Your task to perform on an android device: install app "PlayWell" Image 0: 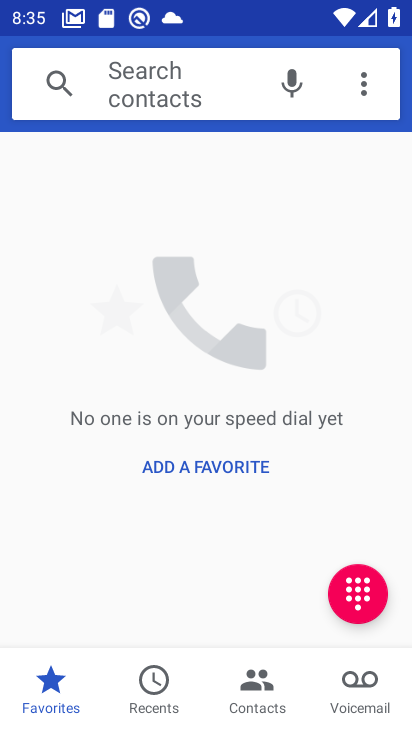
Step 0: press home button
Your task to perform on an android device: install app "PlayWell" Image 1: 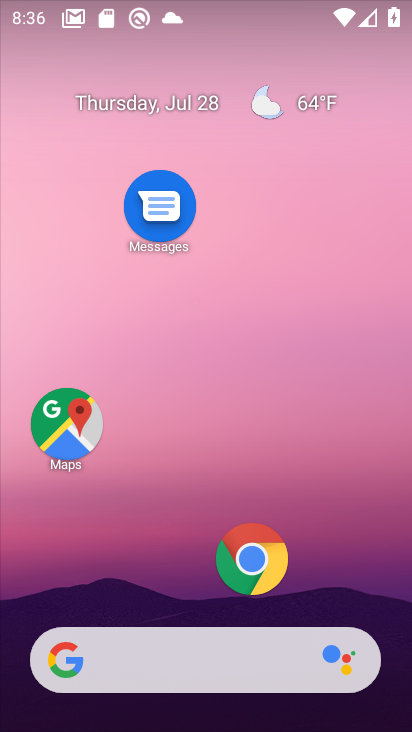
Step 1: drag from (158, 533) to (193, 5)
Your task to perform on an android device: install app "PlayWell" Image 2: 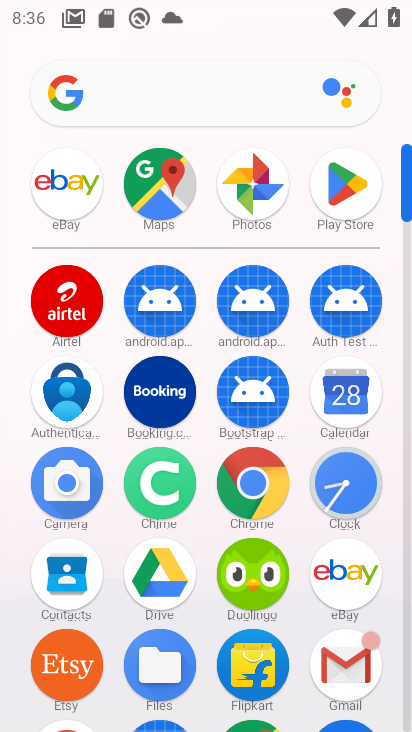
Step 2: click (344, 175)
Your task to perform on an android device: install app "PlayWell" Image 3: 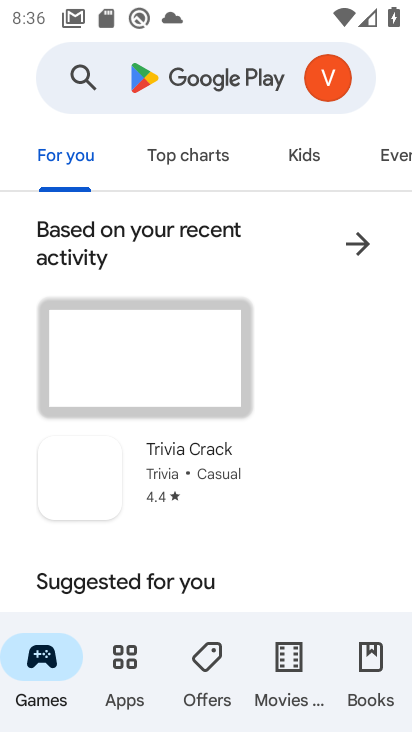
Step 3: click (174, 88)
Your task to perform on an android device: install app "PlayWell" Image 4: 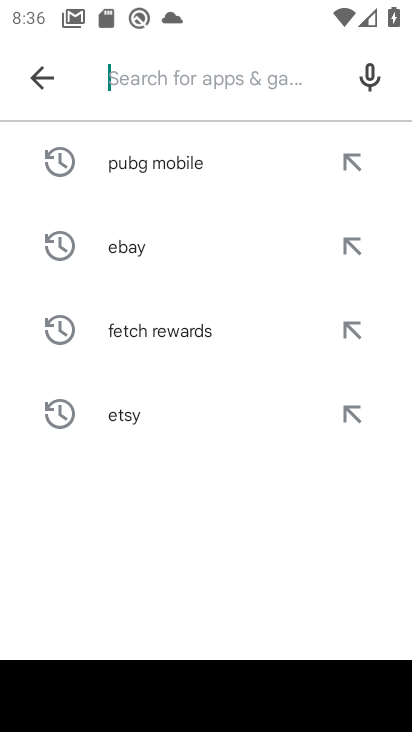
Step 4: type "playwell"
Your task to perform on an android device: install app "PlayWell" Image 5: 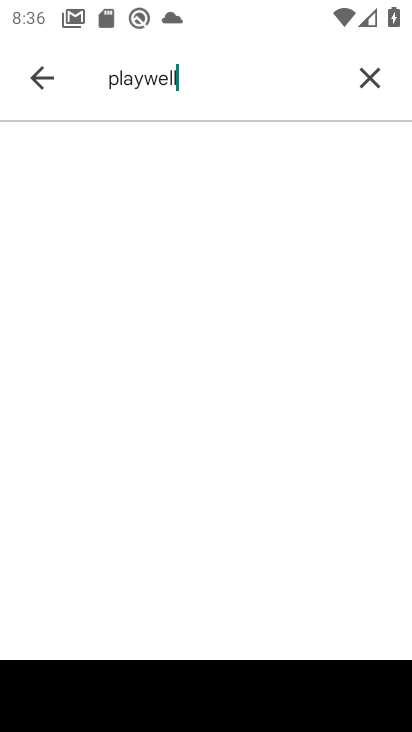
Step 5: click (170, 180)
Your task to perform on an android device: install app "PlayWell" Image 6: 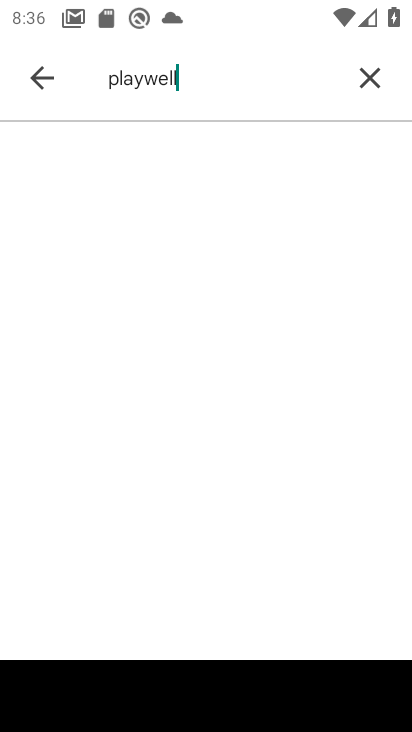
Step 6: drag from (183, 223) to (196, 126)
Your task to perform on an android device: install app "PlayWell" Image 7: 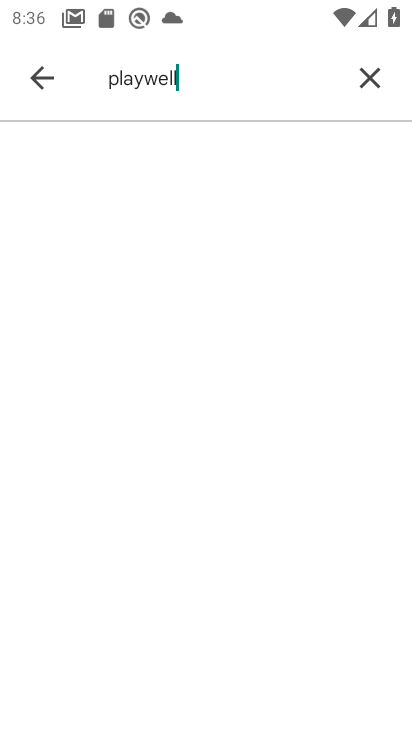
Step 7: drag from (172, 327) to (201, 150)
Your task to perform on an android device: install app "PlayWell" Image 8: 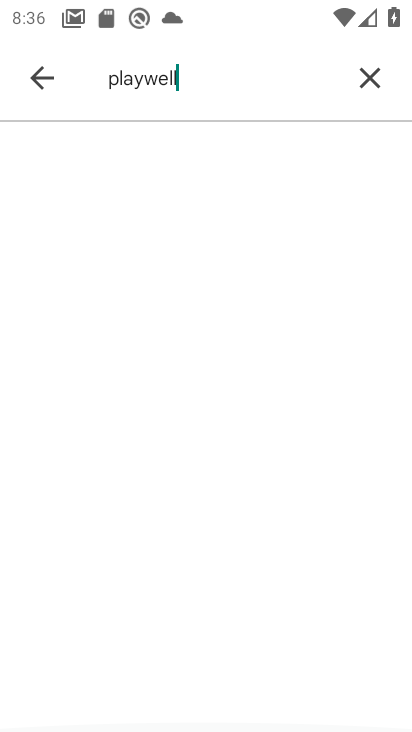
Step 8: drag from (167, 317) to (172, 187)
Your task to perform on an android device: install app "PlayWell" Image 9: 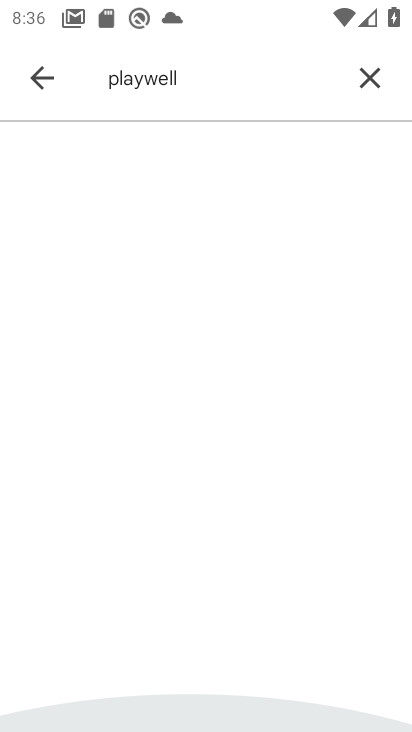
Step 9: drag from (168, 195) to (189, 567)
Your task to perform on an android device: install app "PlayWell" Image 10: 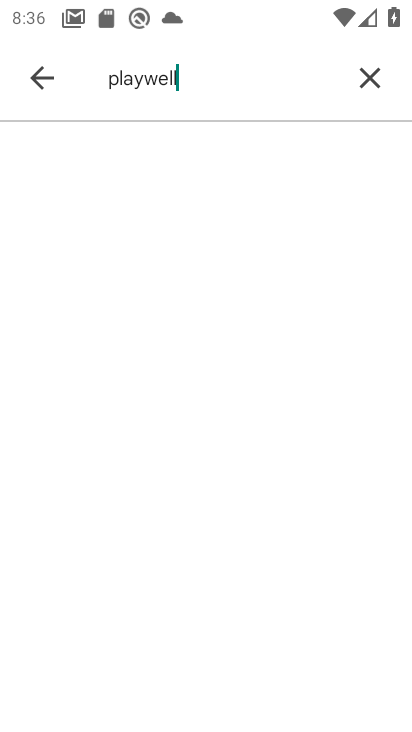
Step 10: drag from (150, 193) to (158, 420)
Your task to perform on an android device: install app "PlayWell" Image 11: 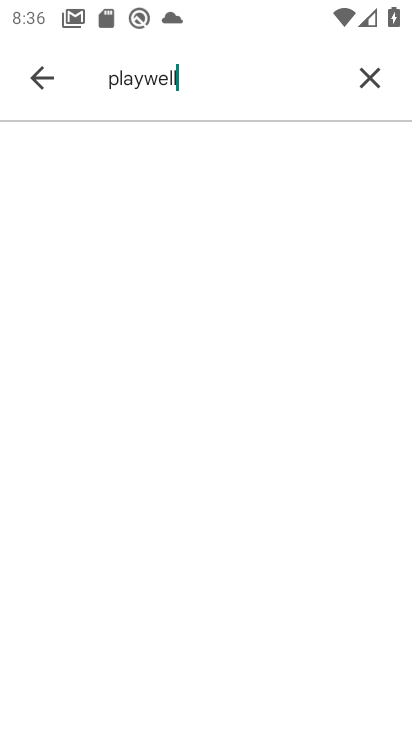
Step 11: click (35, 70)
Your task to perform on an android device: install app "PlayWell" Image 12: 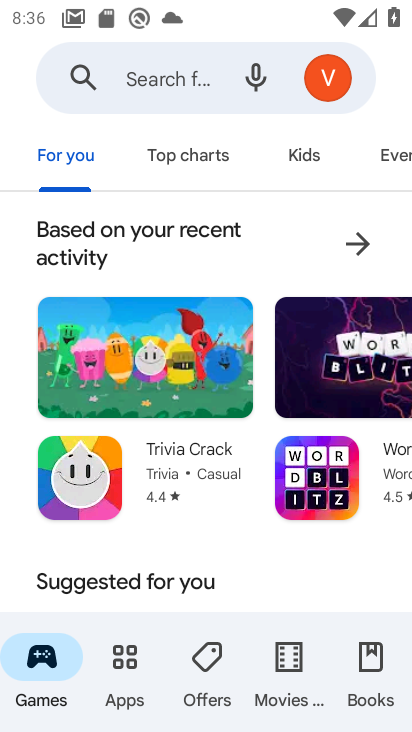
Step 12: click (171, 70)
Your task to perform on an android device: install app "PlayWell" Image 13: 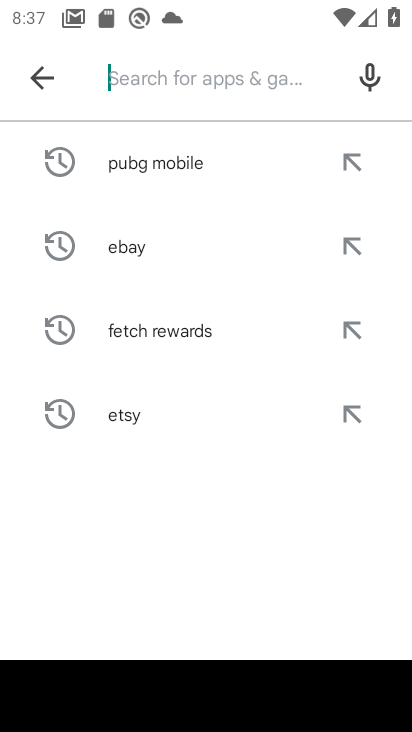
Step 13: type "Playwell"
Your task to perform on an android device: install app "PlayWell" Image 14: 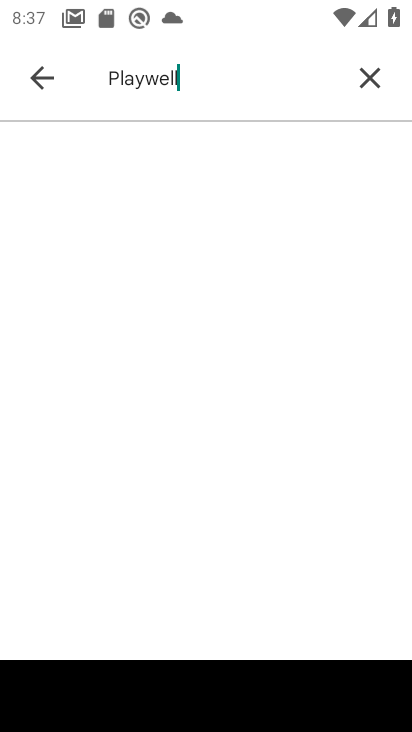
Step 14: click (189, 183)
Your task to perform on an android device: install app "PlayWell" Image 15: 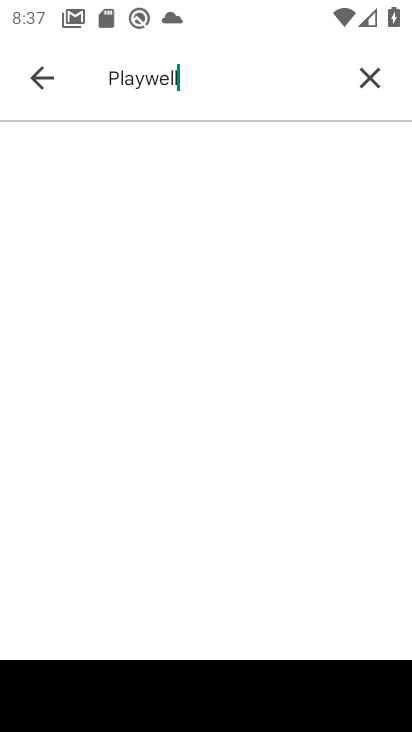
Step 15: click (93, 150)
Your task to perform on an android device: install app "PlayWell" Image 16: 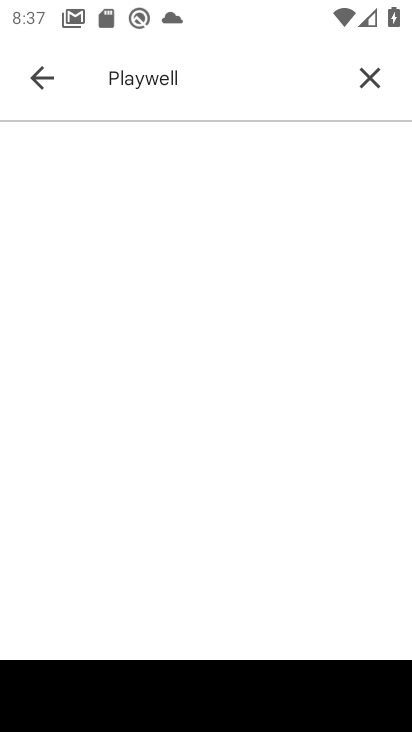
Step 16: click (154, 149)
Your task to perform on an android device: install app "PlayWell" Image 17: 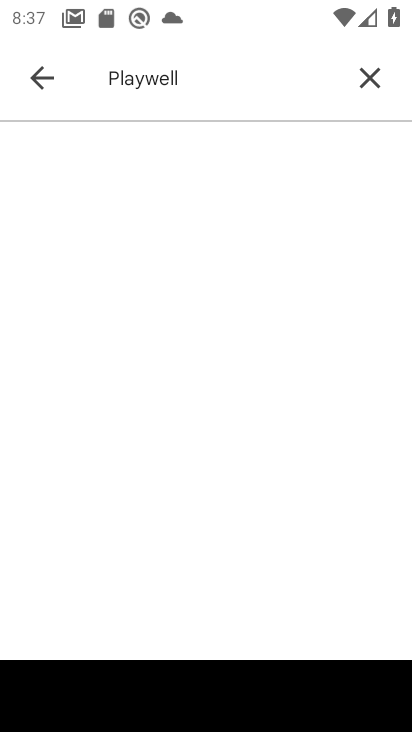
Step 17: task complete